Your task to perform on an android device: Go to Yahoo.com Image 0: 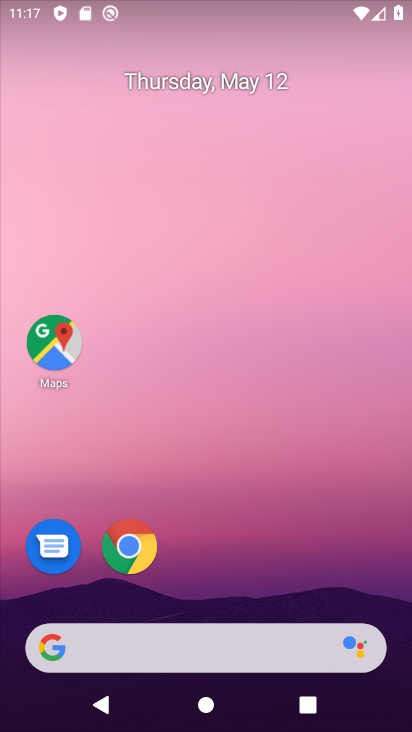
Step 0: click (131, 543)
Your task to perform on an android device: Go to Yahoo.com Image 1: 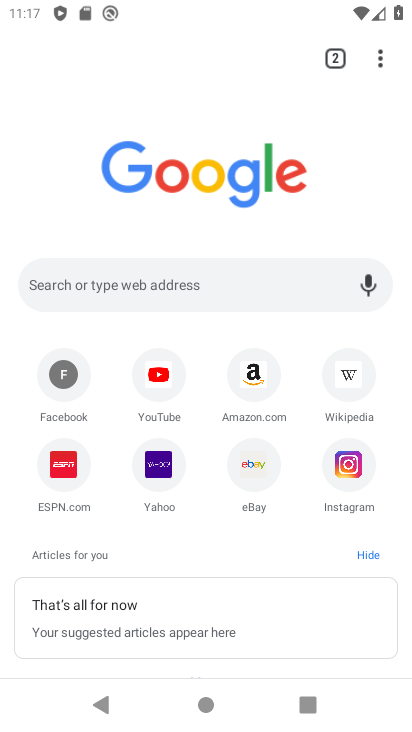
Step 1: click (160, 457)
Your task to perform on an android device: Go to Yahoo.com Image 2: 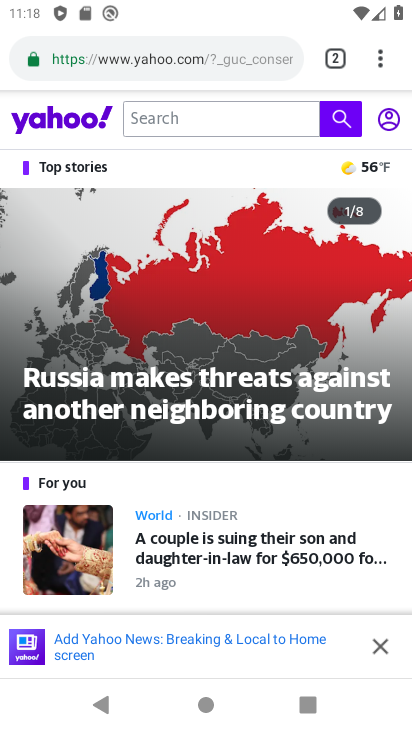
Step 2: task complete